Your task to perform on an android device: check the backup settings in the google photos Image 0: 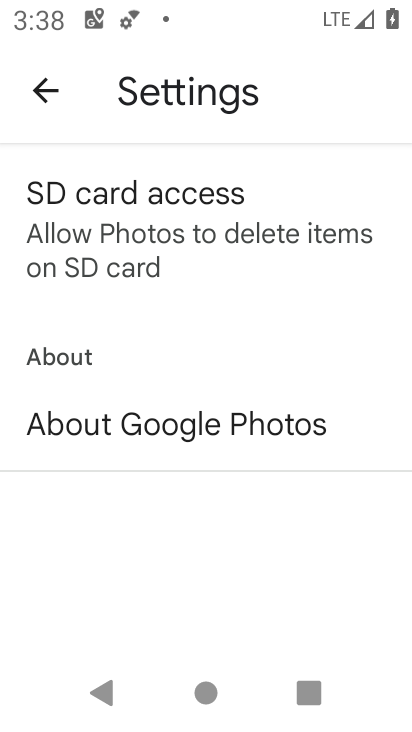
Step 0: press home button
Your task to perform on an android device: check the backup settings in the google photos Image 1: 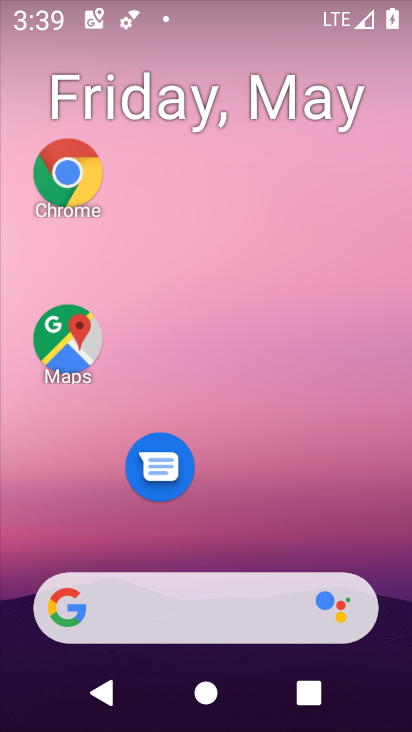
Step 1: drag from (297, 504) to (243, 11)
Your task to perform on an android device: check the backup settings in the google photos Image 2: 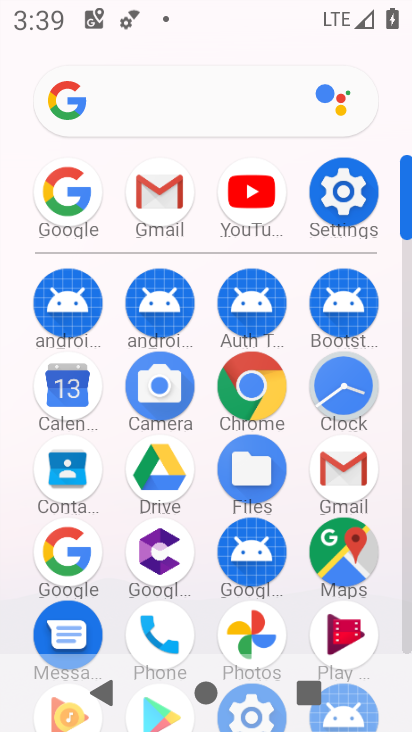
Step 2: click (253, 625)
Your task to perform on an android device: check the backup settings in the google photos Image 3: 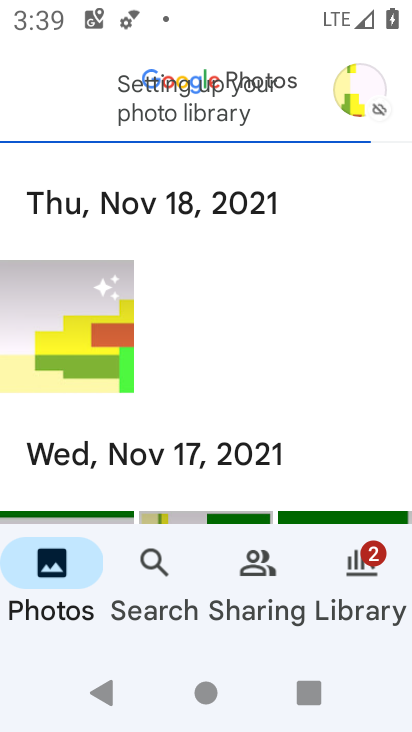
Step 3: click (362, 92)
Your task to perform on an android device: check the backup settings in the google photos Image 4: 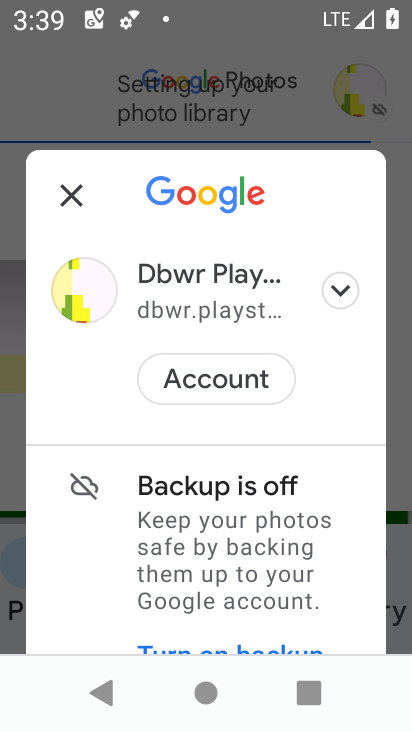
Step 4: drag from (222, 547) to (232, 180)
Your task to perform on an android device: check the backup settings in the google photos Image 5: 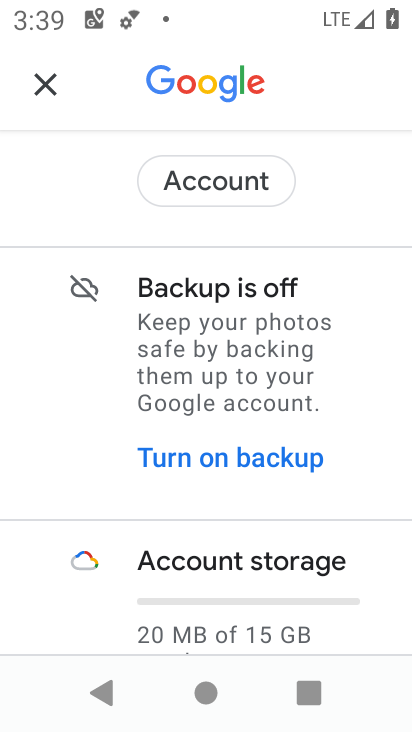
Step 5: drag from (212, 536) to (212, 230)
Your task to perform on an android device: check the backup settings in the google photos Image 6: 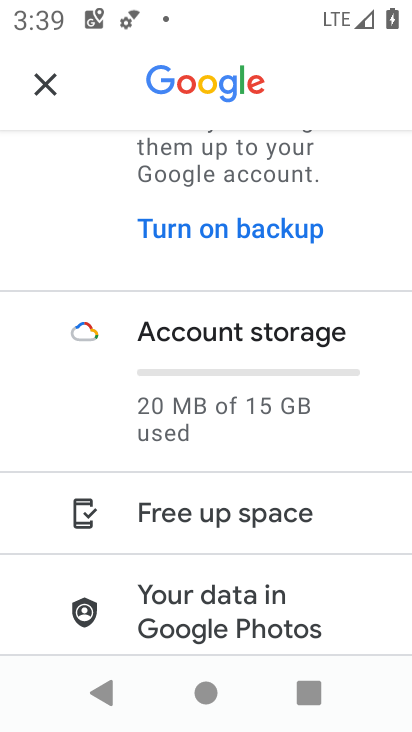
Step 6: drag from (211, 521) to (214, 247)
Your task to perform on an android device: check the backup settings in the google photos Image 7: 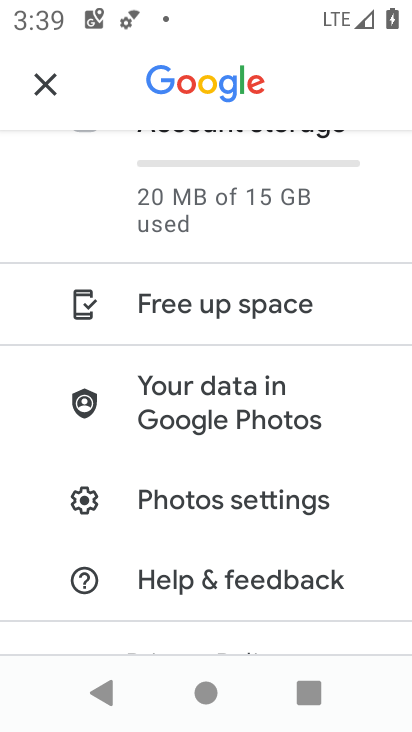
Step 7: click (187, 498)
Your task to perform on an android device: check the backup settings in the google photos Image 8: 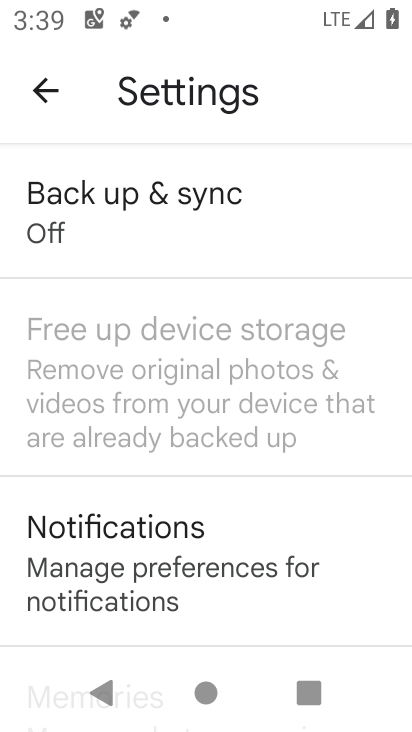
Step 8: click (167, 201)
Your task to perform on an android device: check the backup settings in the google photos Image 9: 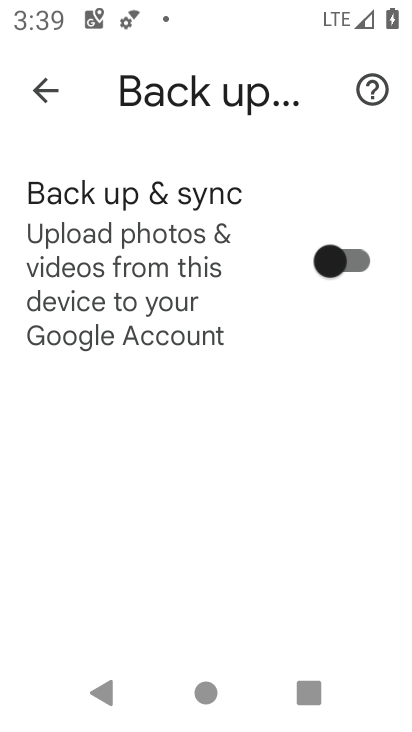
Step 9: task complete